Your task to perform on an android device: Open eBay Image 0: 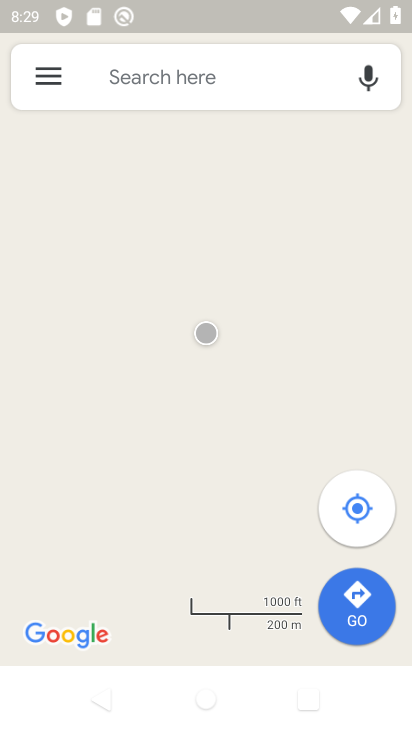
Step 0: drag from (221, 578) to (155, 274)
Your task to perform on an android device: Open eBay Image 1: 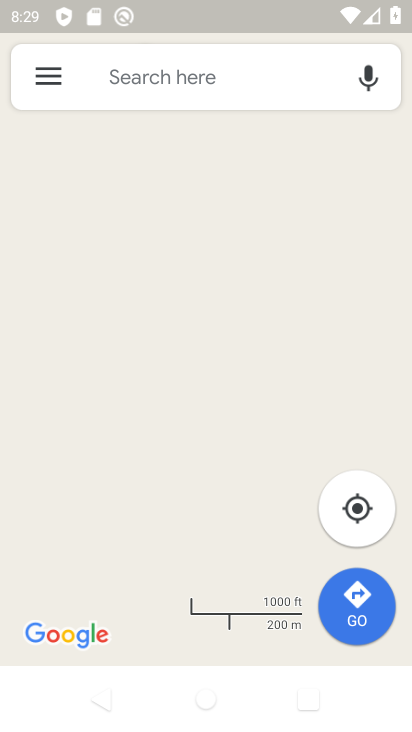
Step 1: press home button
Your task to perform on an android device: Open eBay Image 2: 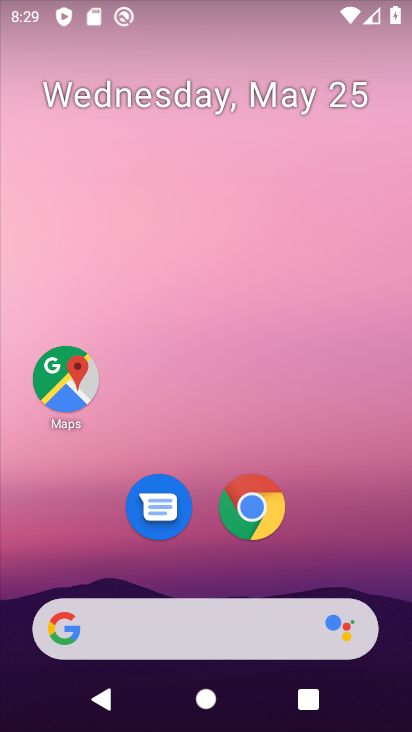
Step 2: click (253, 498)
Your task to perform on an android device: Open eBay Image 3: 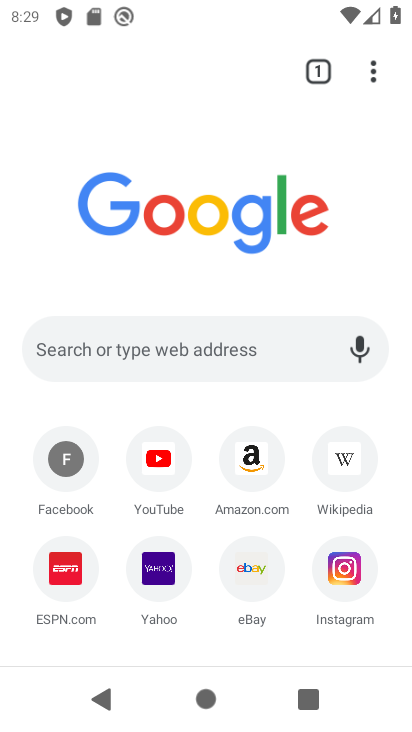
Step 3: click (247, 558)
Your task to perform on an android device: Open eBay Image 4: 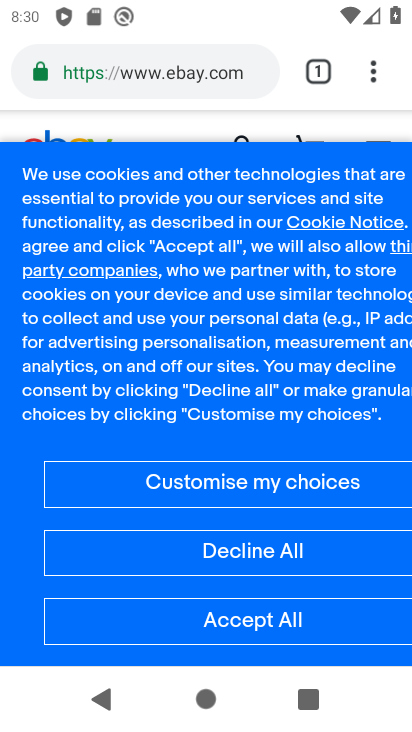
Step 4: task complete